Your task to perform on an android device: How much does the Sony TV cost? Image 0: 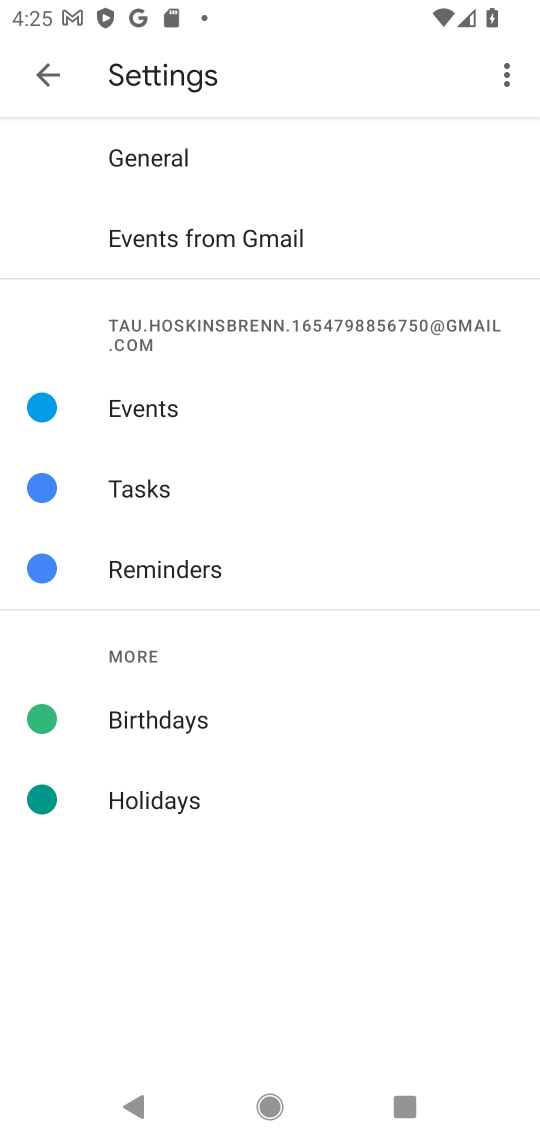
Step 0: press home button
Your task to perform on an android device: How much does the Sony TV cost? Image 1: 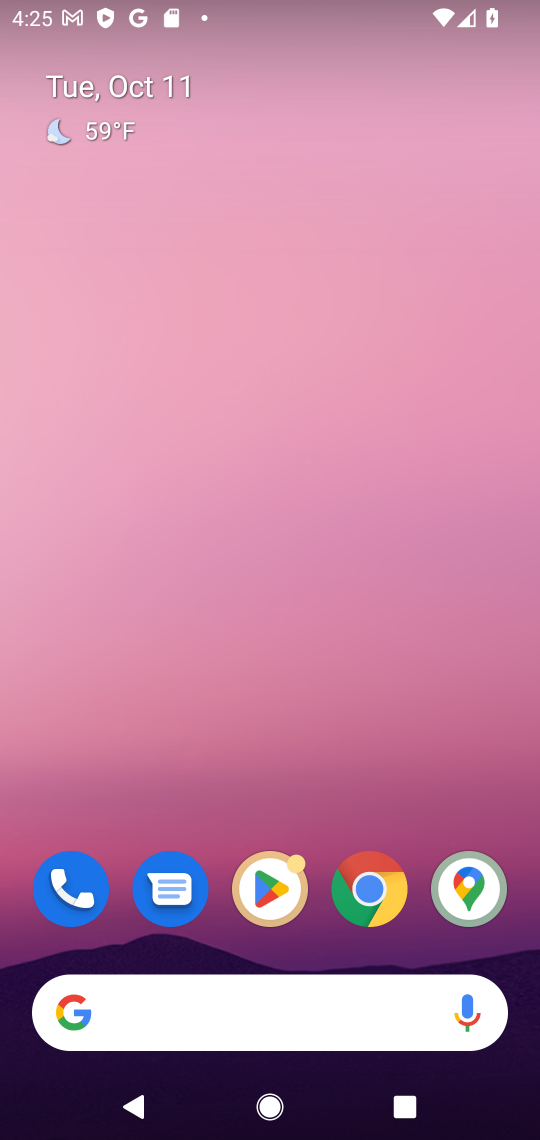
Step 1: drag from (273, 909) to (275, 78)
Your task to perform on an android device: How much does the Sony TV cost? Image 2: 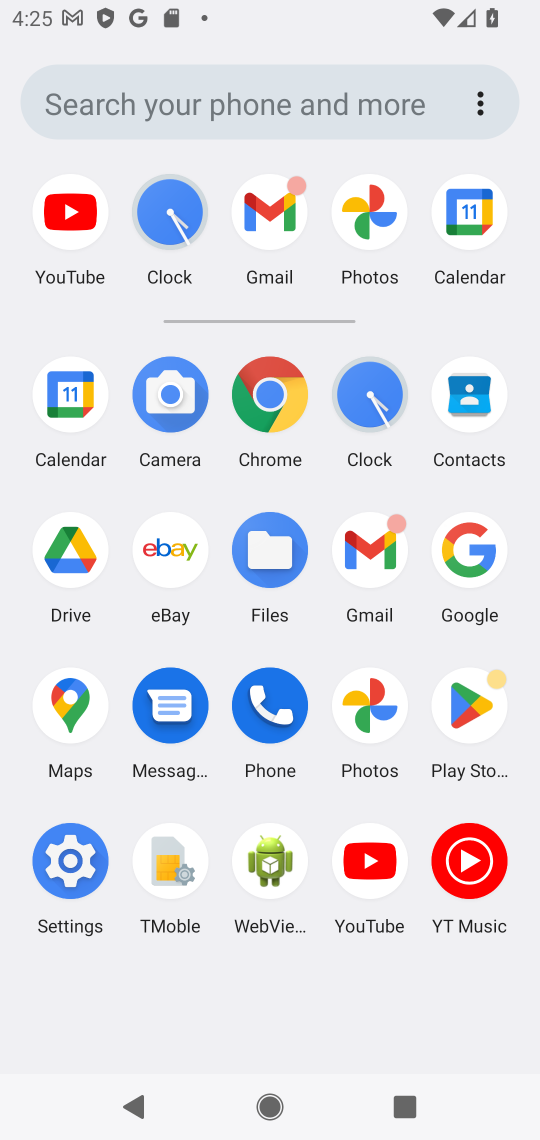
Step 2: click (476, 560)
Your task to perform on an android device: How much does the Sony TV cost? Image 3: 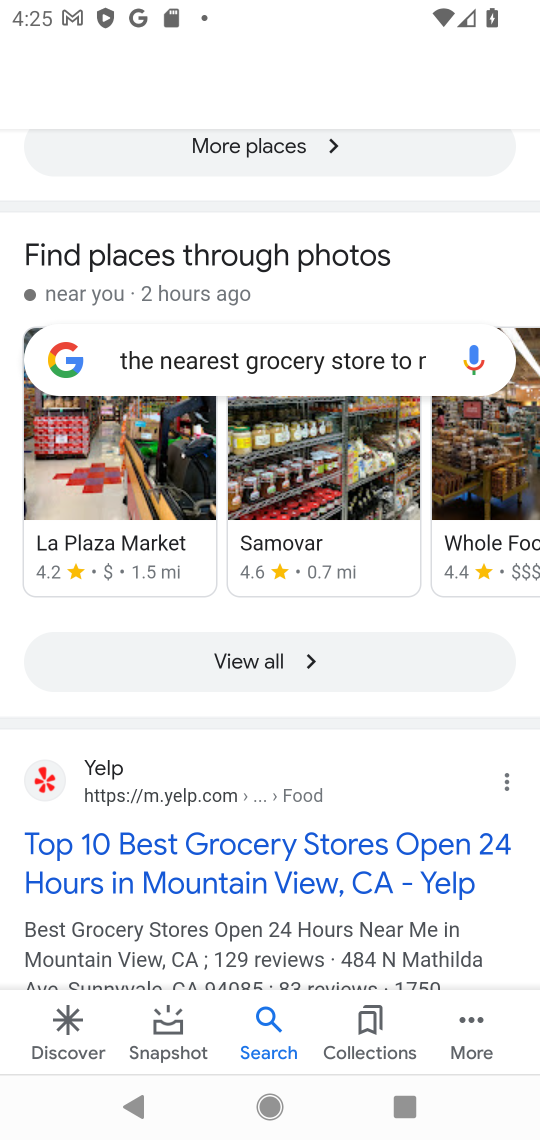
Step 3: click (279, 356)
Your task to perform on an android device: How much does the Sony TV cost? Image 4: 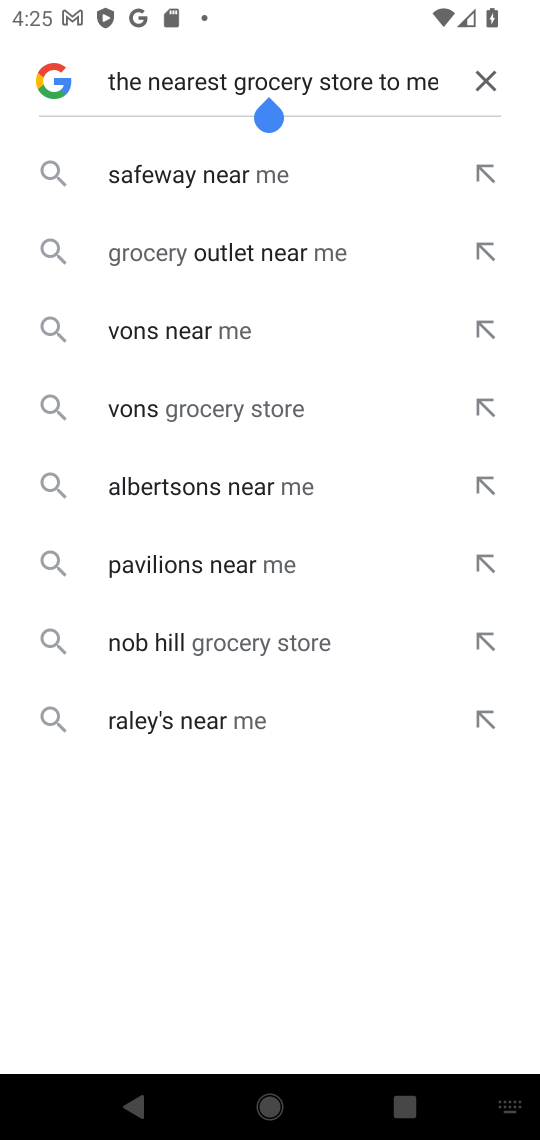
Step 4: click (471, 83)
Your task to perform on an android device: How much does the Sony TV cost? Image 5: 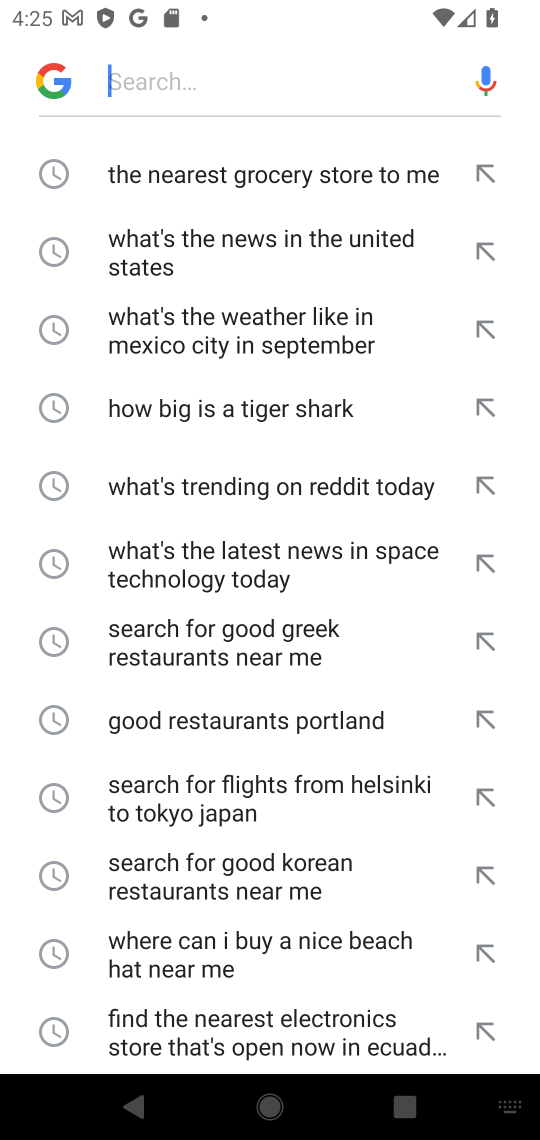
Step 5: click (285, 100)
Your task to perform on an android device: How much does the Sony TV cost? Image 6: 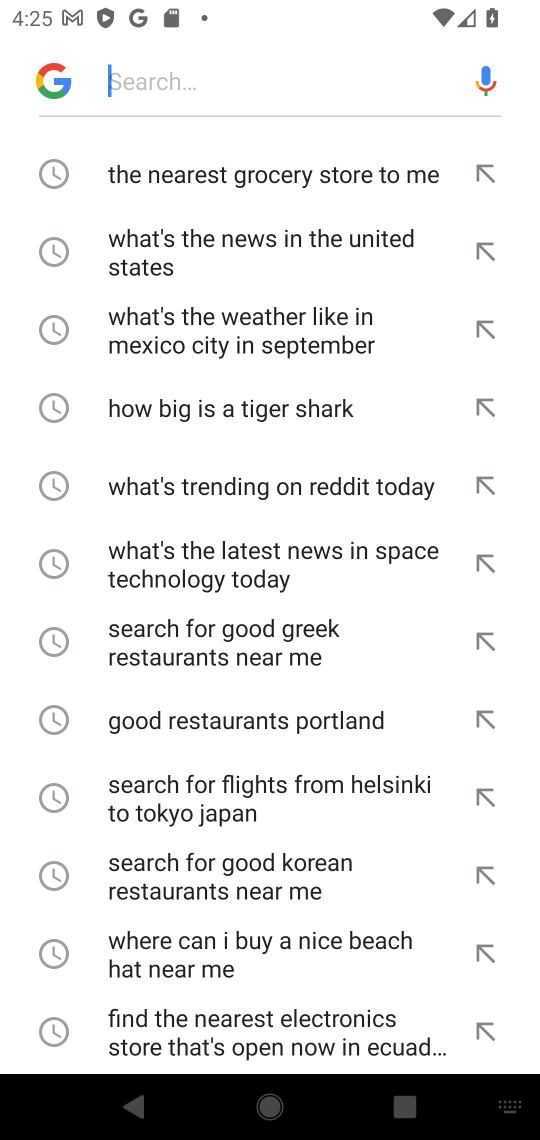
Step 6: click (288, 95)
Your task to perform on an android device: How much does the Sony TV cost? Image 7: 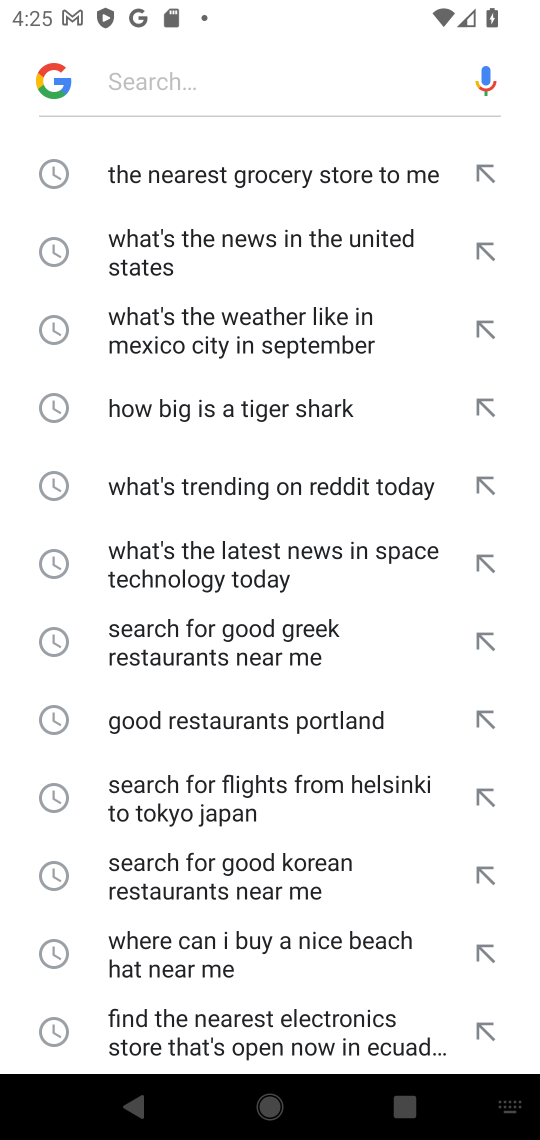
Step 7: type "How much does the Sony TV cost "
Your task to perform on an android device: How much does the Sony TV cost? Image 8: 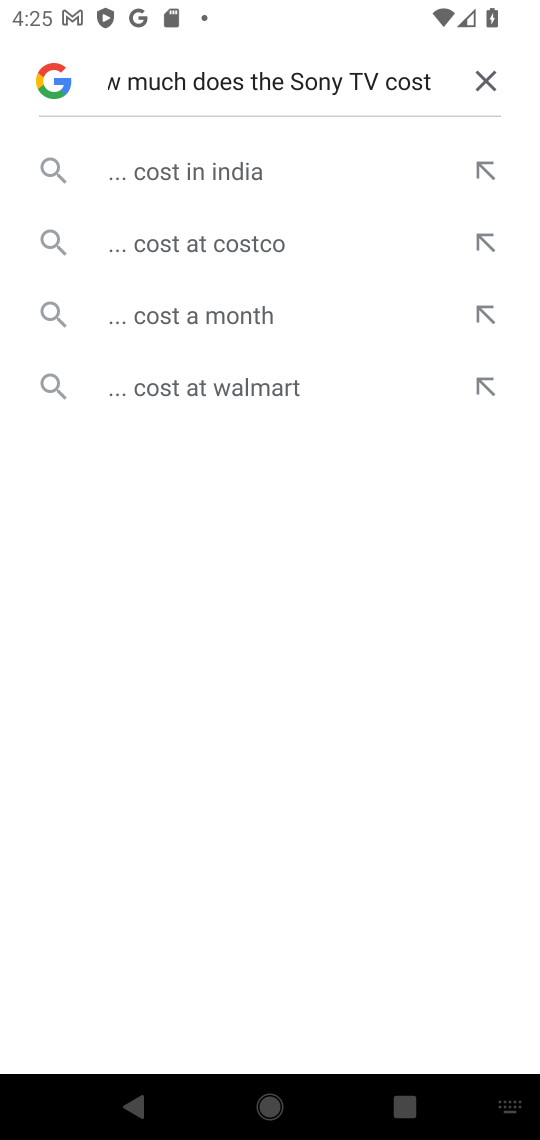
Step 8: click (215, 181)
Your task to perform on an android device: How much does the Sony TV cost? Image 9: 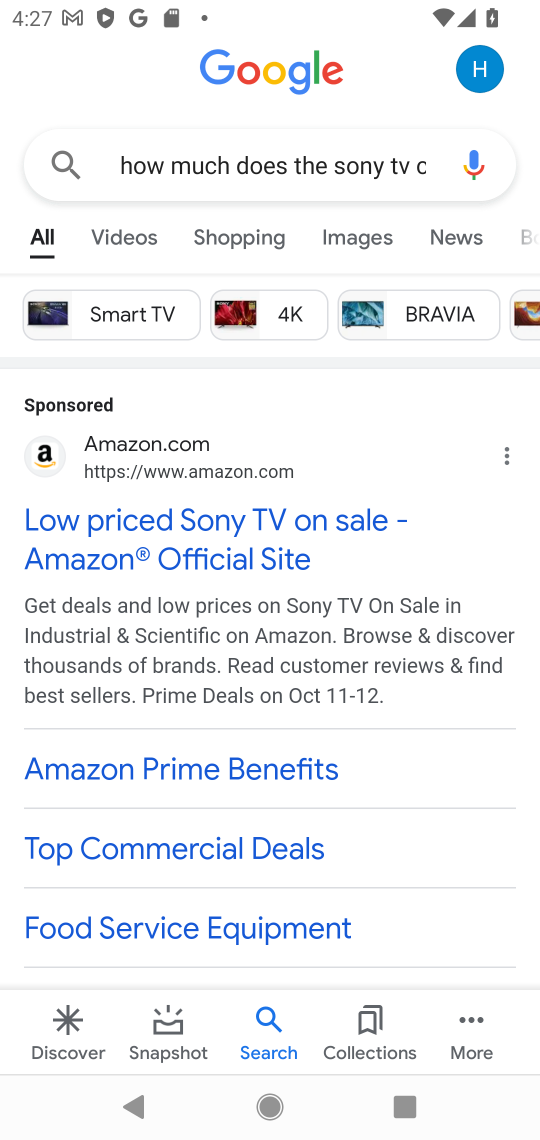
Step 9: click (283, 514)
Your task to perform on an android device: How much does the Sony TV cost? Image 10: 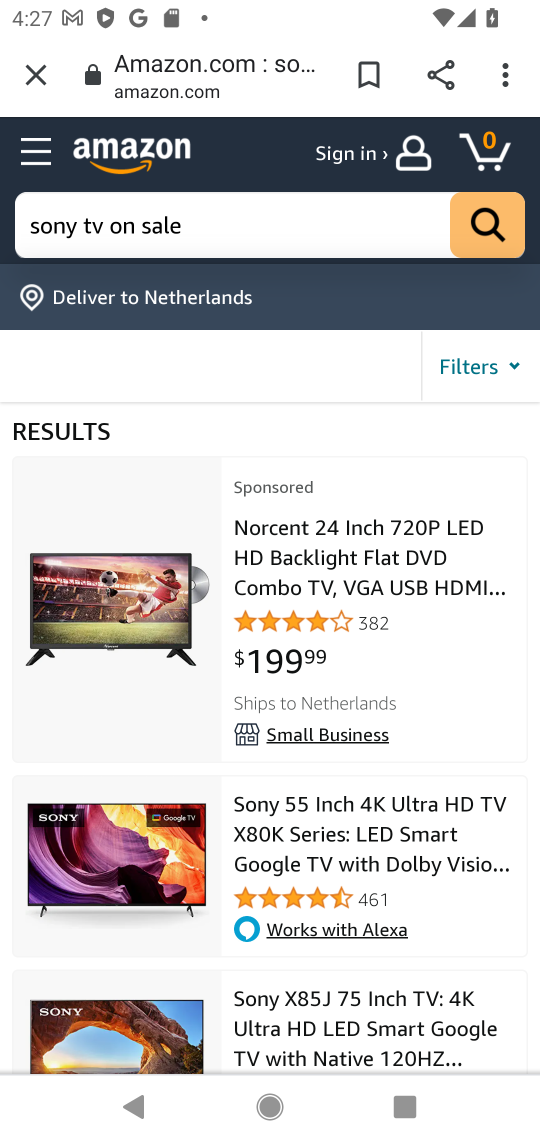
Step 10: task complete